Your task to perform on an android device: Open the stopwatch Image 0: 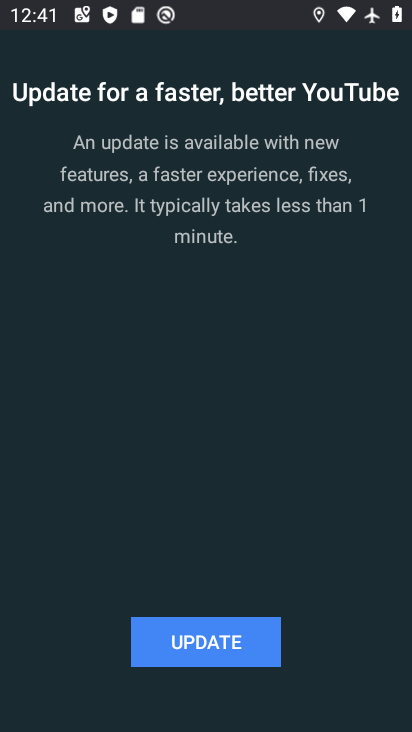
Step 0: press home button
Your task to perform on an android device: Open the stopwatch Image 1: 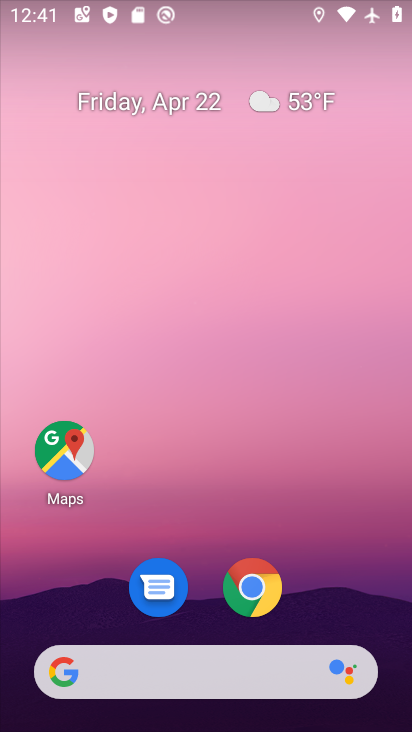
Step 1: drag from (171, 670) to (249, 139)
Your task to perform on an android device: Open the stopwatch Image 2: 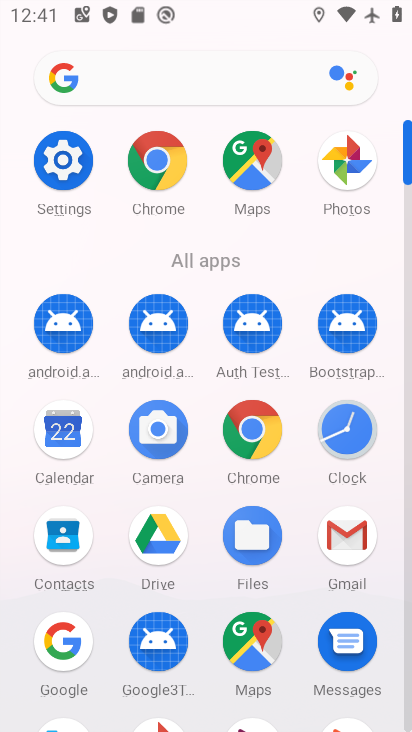
Step 2: click (343, 432)
Your task to perform on an android device: Open the stopwatch Image 3: 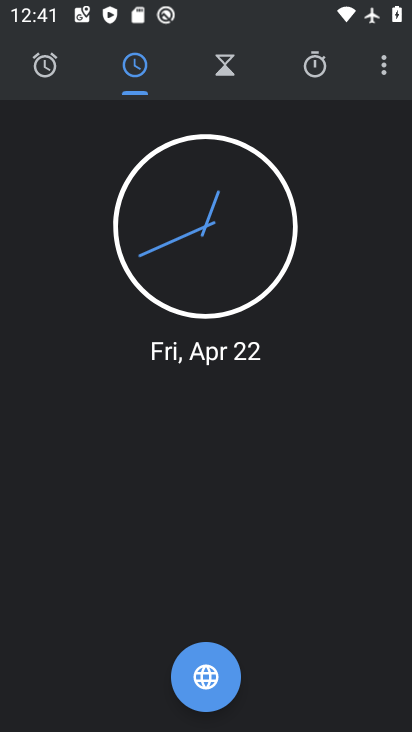
Step 3: click (316, 65)
Your task to perform on an android device: Open the stopwatch Image 4: 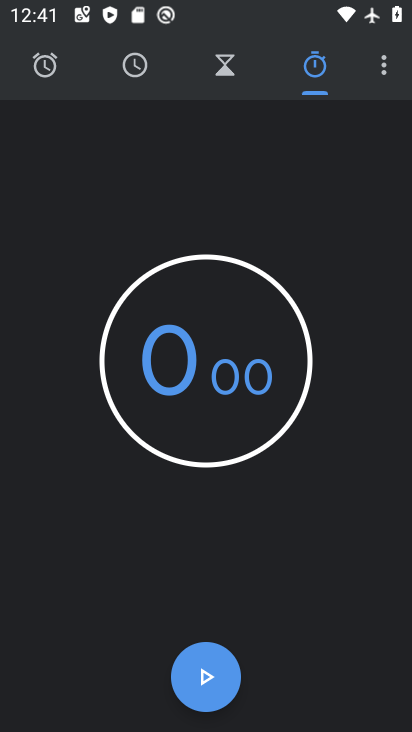
Step 4: click (228, 375)
Your task to perform on an android device: Open the stopwatch Image 5: 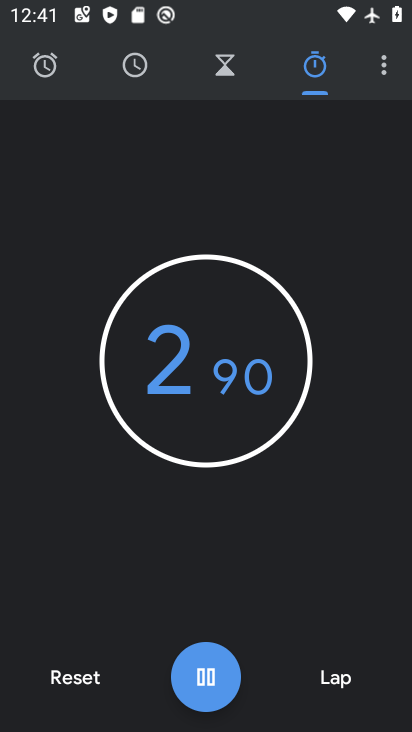
Step 5: click (216, 374)
Your task to perform on an android device: Open the stopwatch Image 6: 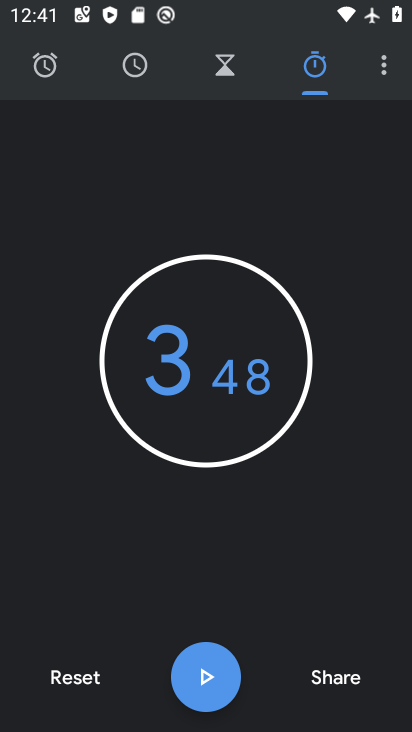
Step 6: task complete